Your task to perform on an android device: read, delete, or share a saved page in the chrome app Image 0: 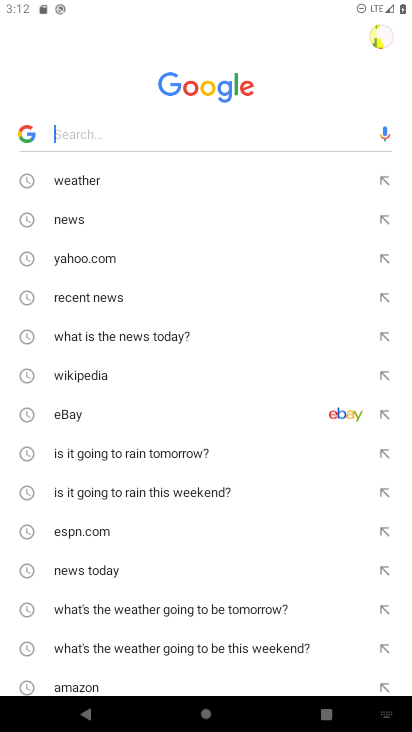
Step 0: press home button
Your task to perform on an android device: read, delete, or share a saved page in the chrome app Image 1: 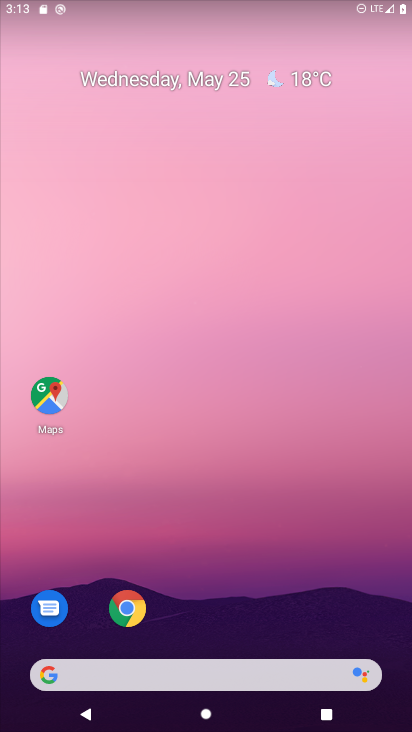
Step 1: click (124, 607)
Your task to perform on an android device: read, delete, or share a saved page in the chrome app Image 2: 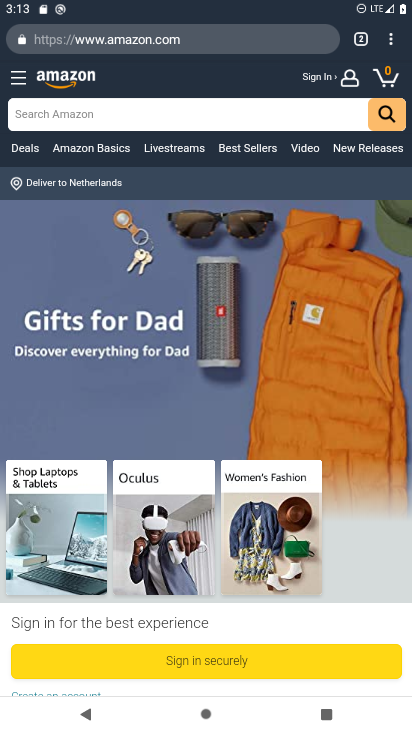
Step 2: click (390, 44)
Your task to perform on an android device: read, delete, or share a saved page in the chrome app Image 3: 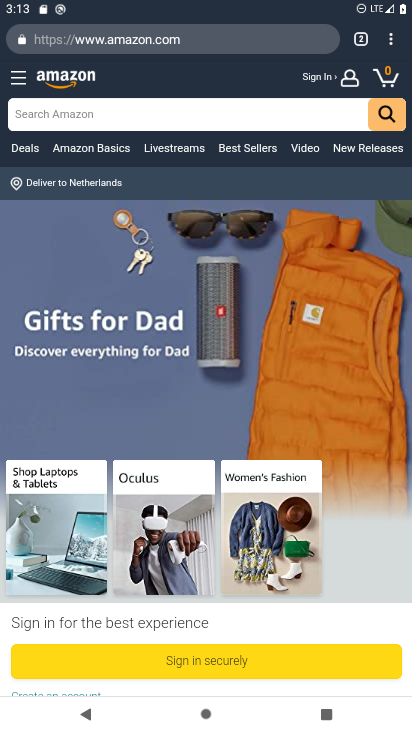
Step 3: click (390, 45)
Your task to perform on an android device: read, delete, or share a saved page in the chrome app Image 4: 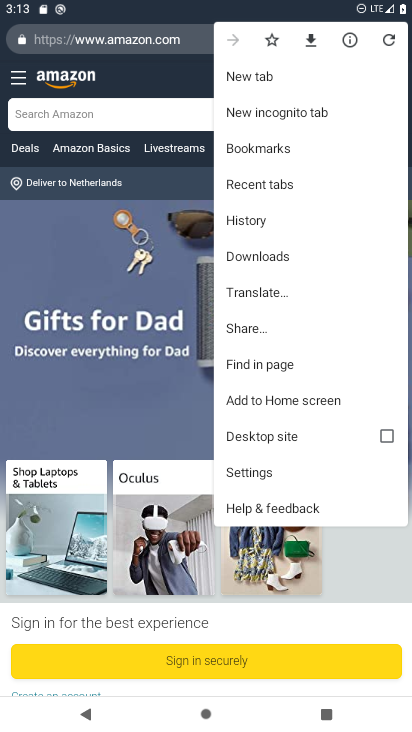
Step 4: click (244, 258)
Your task to perform on an android device: read, delete, or share a saved page in the chrome app Image 5: 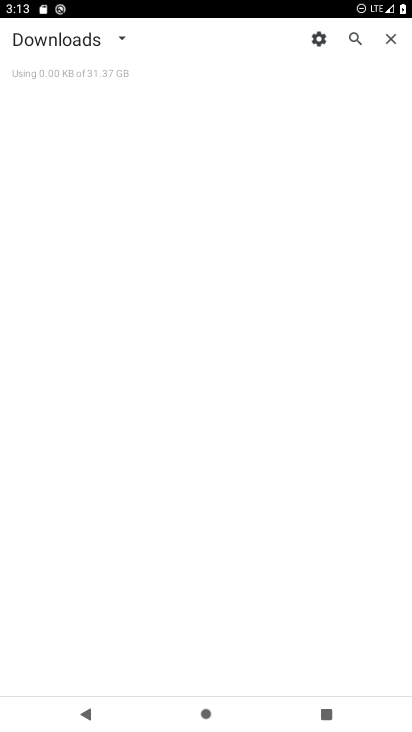
Step 5: click (120, 39)
Your task to perform on an android device: read, delete, or share a saved page in the chrome app Image 6: 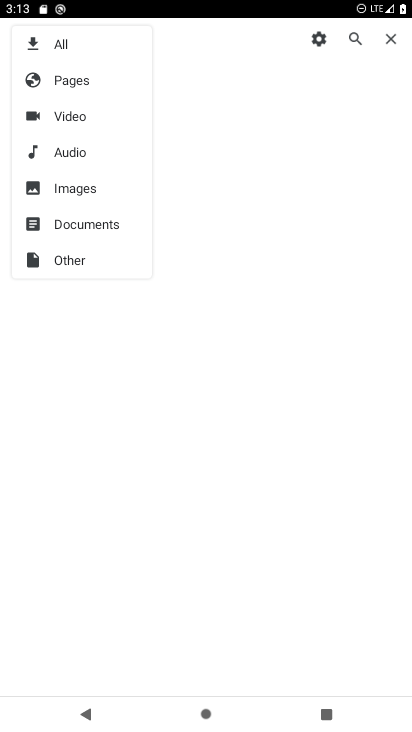
Step 6: click (68, 85)
Your task to perform on an android device: read, delete, or share a saved page in the chrome app Image 7: 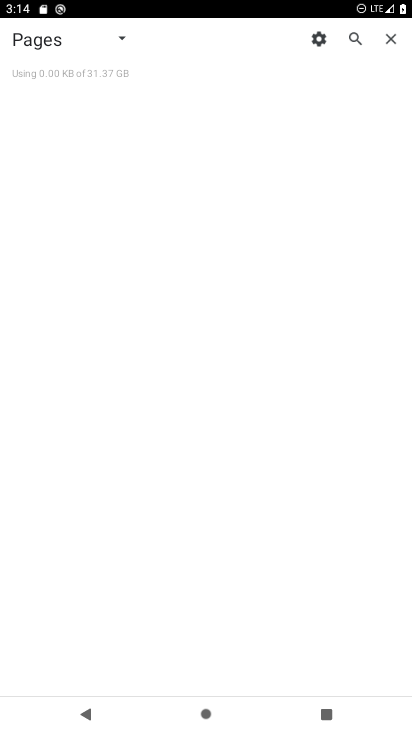
Step 7: task complete